Your task to perform on an android device: empty trash in the gmail app Image 0: 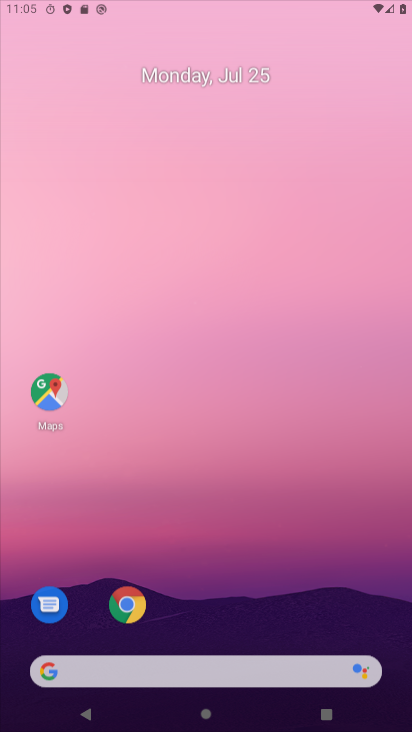
Step 0: click (277, 153)
Your task to perform on an android device: empty trash in the gmail app Image 1: 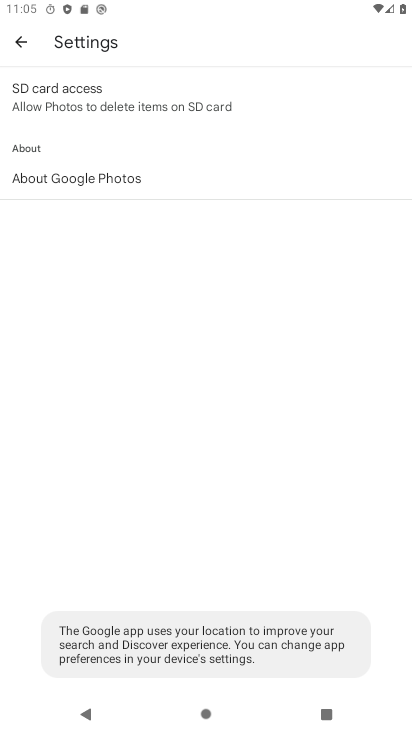
Step 1: drag from (240, 638) to (249, 284)
Your task to perform on an android device: empty trash in the gmail app Image 2: 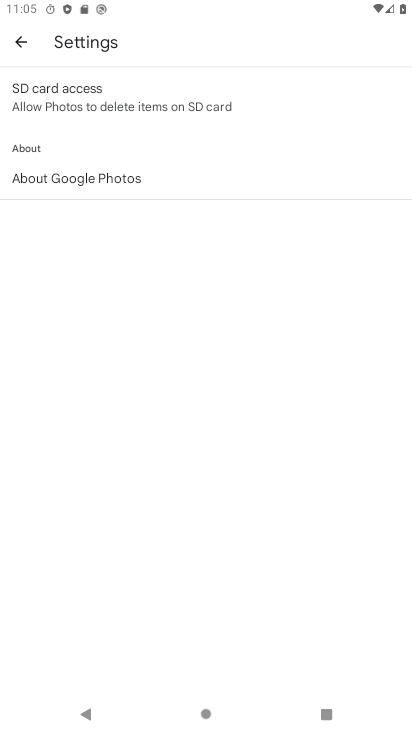
Step 2: press home button
Your task to perform on an android device: empty trash in the gmail app Image 3: 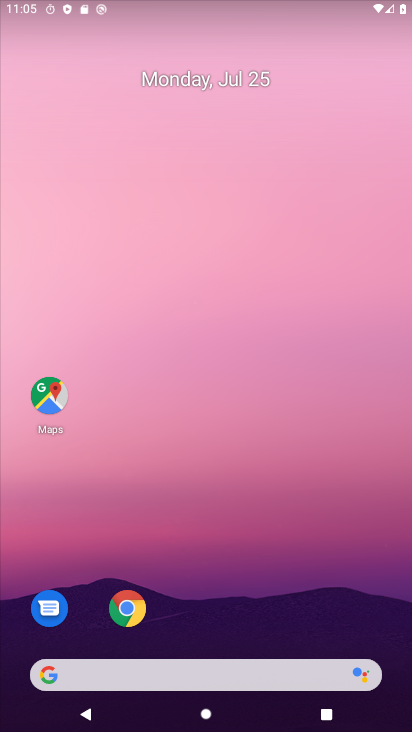
Step 3: drag from (260, 575) to (299, 80)
Your task to perform on an android device: empty trash in the gmail app Image 4: 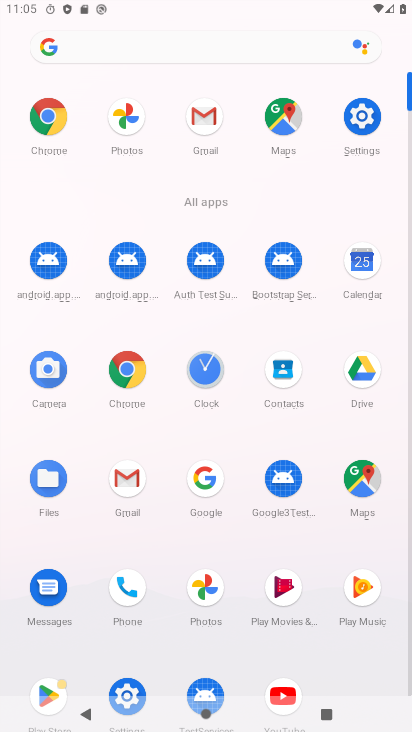
Step 4: click (207, 116)
Your task to perform on an android device: empty trash in the gmail app Image 5: 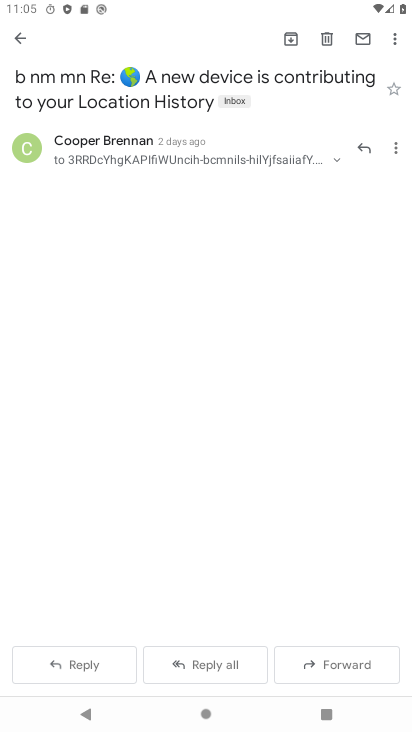
Step 5: click (19, 43)
Your task to perform on an android device: empty trash in the gmail app Image 6: 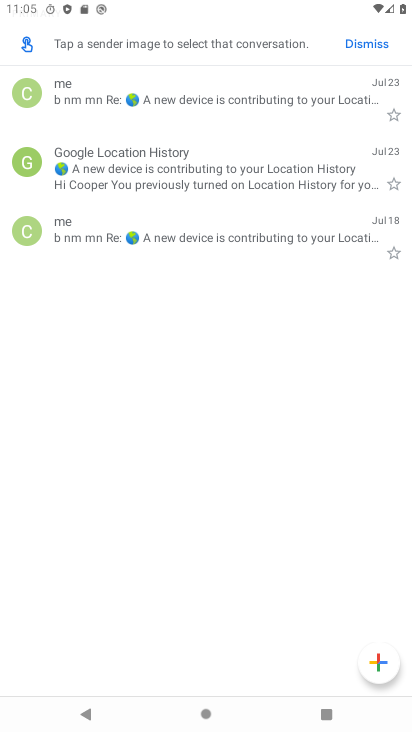
Step 6: press back button
Your task to perform on an android device: empty trash in the gmail app Image 7: 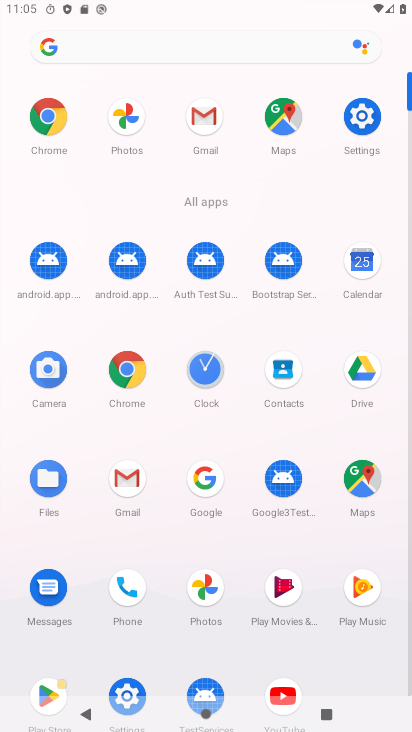
Step 7: click (207, 118)
Your task to perform on an android device: empty trash in the gmail app Image 8: 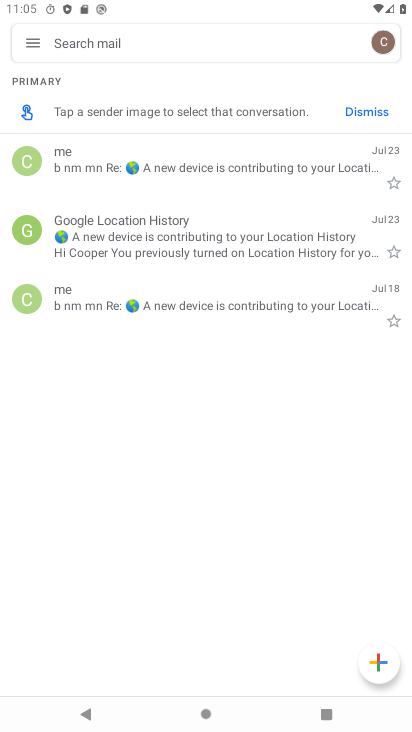
Step 8: click (41, 43)
Your task to perform on an android device: empty trash in the gmail app Image 9: 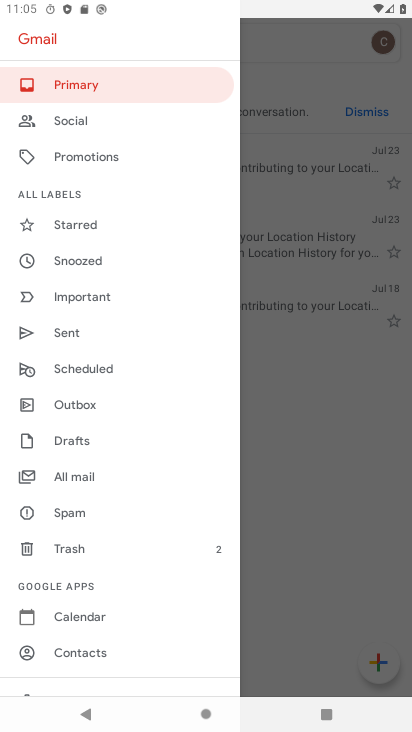
Step 9: click (77, 545)
Your task to perform on an android device: empty trash in the gmail app Image 10: 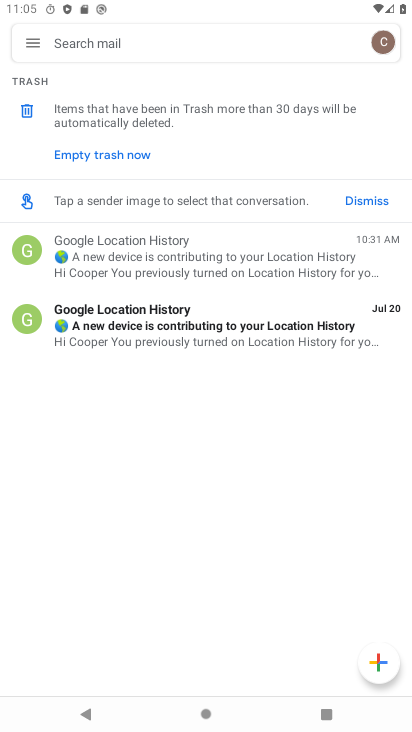
Step 10: click (204, 248)
Your task to perform on an android device: empty trash in the gmail app Image 11: 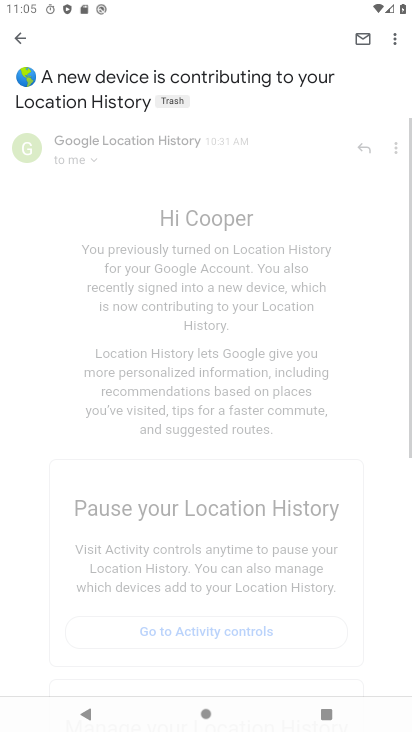
Step 11: click (28, 37)
Your task to perform on an android device: empty trash in the gmail app Image 12: 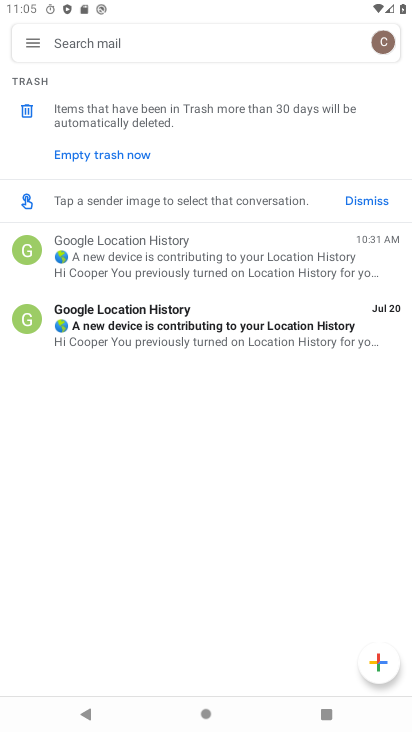
Step 12: click (105, 156)
Your task to perform on an android device: empty trash in the gmail app Image 13: 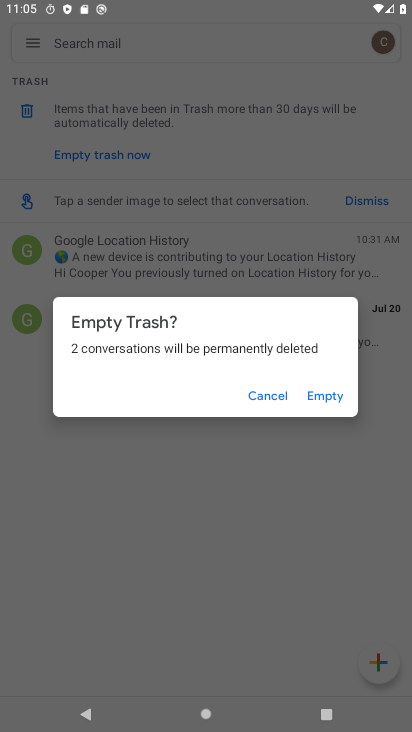
Step 13: click (334, 394)
Your task to perform on an android device: empty trash in the gmail app Image 14: 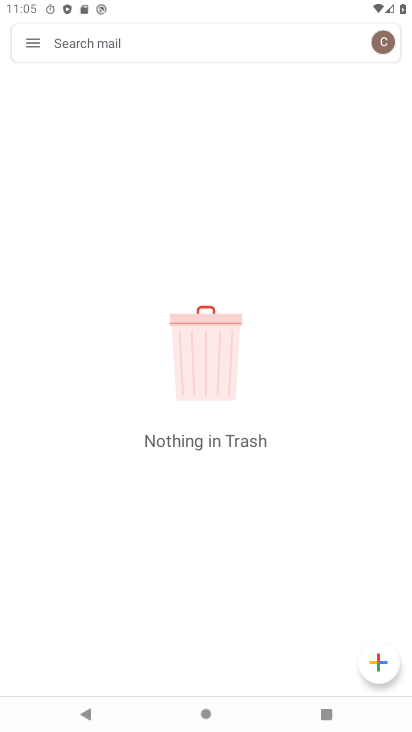
Step 14: task complete